Your task to perform on an android device: Open Chrome and go to settings Image 0: 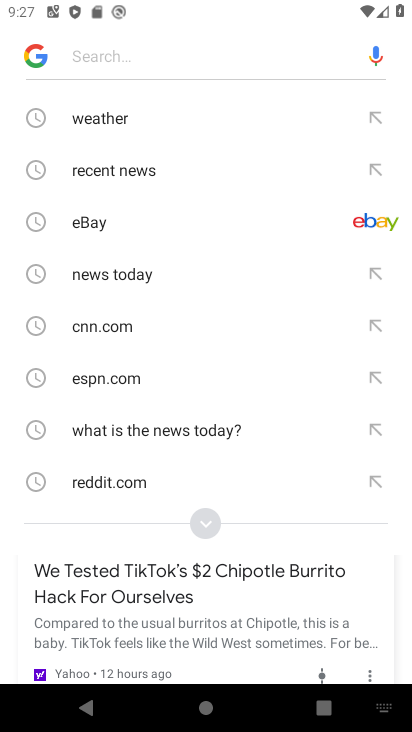
Step 0: press home button
Your task to perform on an android device: Open Chrome and go to settings Image 1: 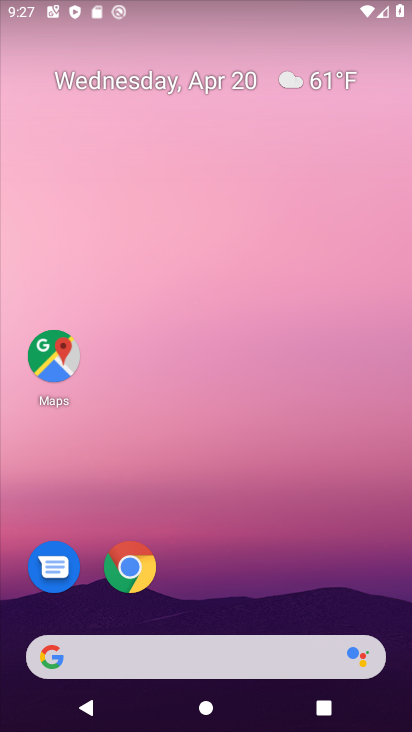
Step 1: click (126, 567)
Your task to perform on an android device: Open Chrome and go to settings Image 2: 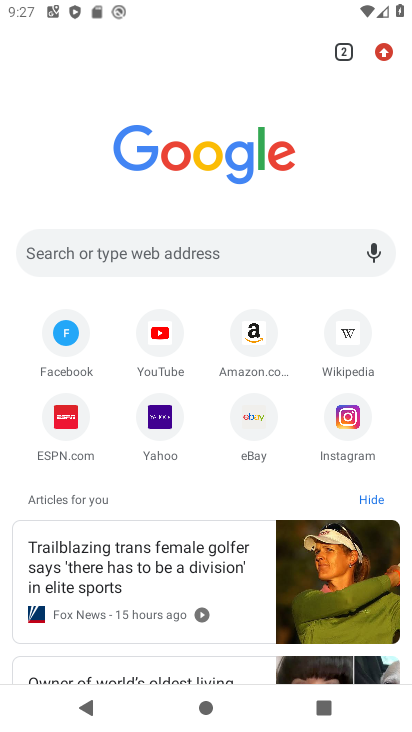
Step 2: task complete